Your task to perform on an android device: turn on airplane mode Image 0: 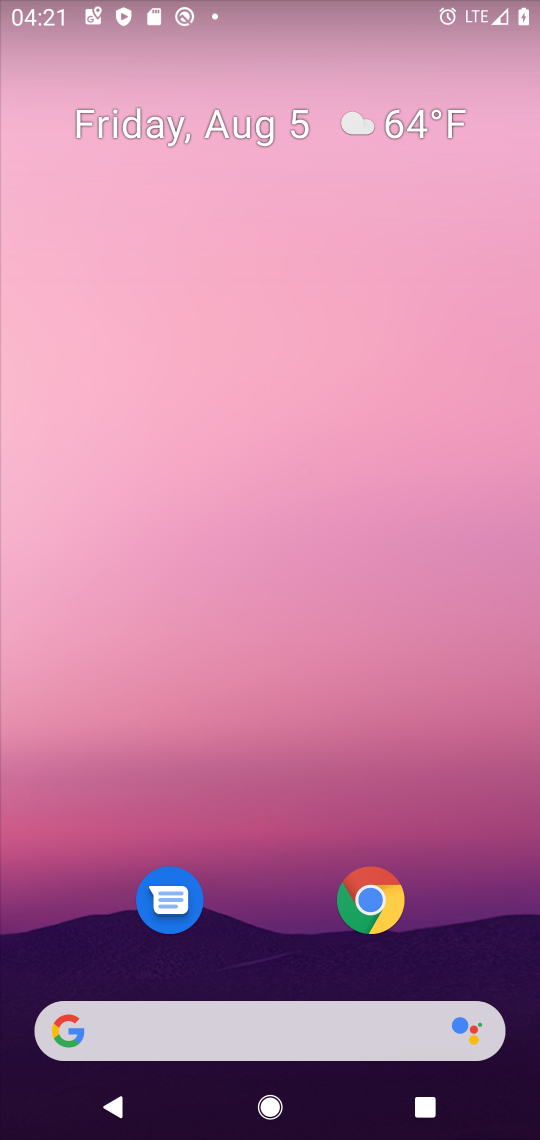
Step 0: drag from (310, 809) to (356, 136)
Your task to perform on an android device: turn on airplane mode Image 1: 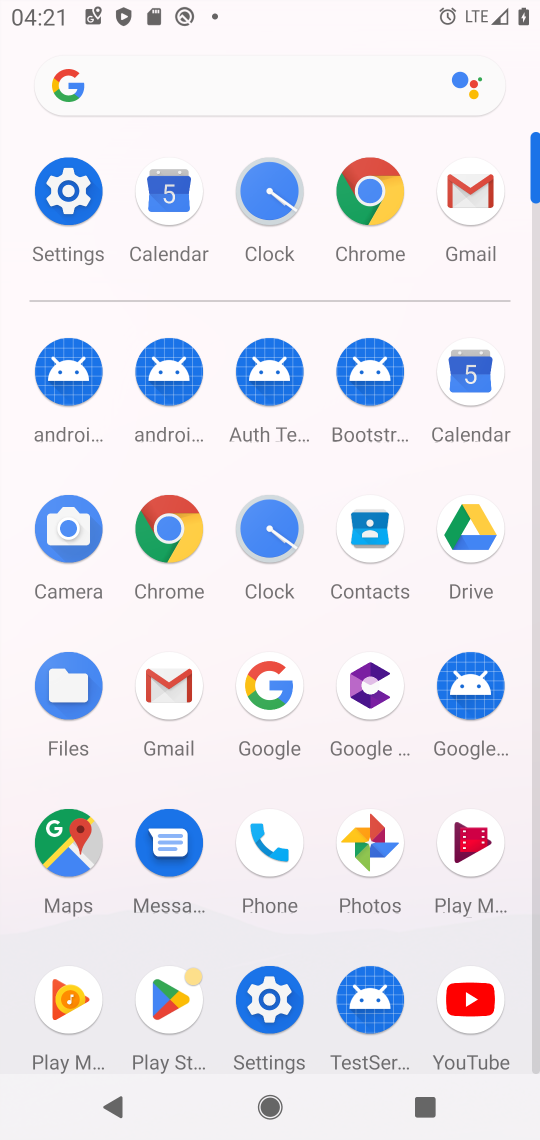
Step 1: drag from (498, 12) to (370, 863)
Your task to perform on an android device: turn on airplane mode Image 2: 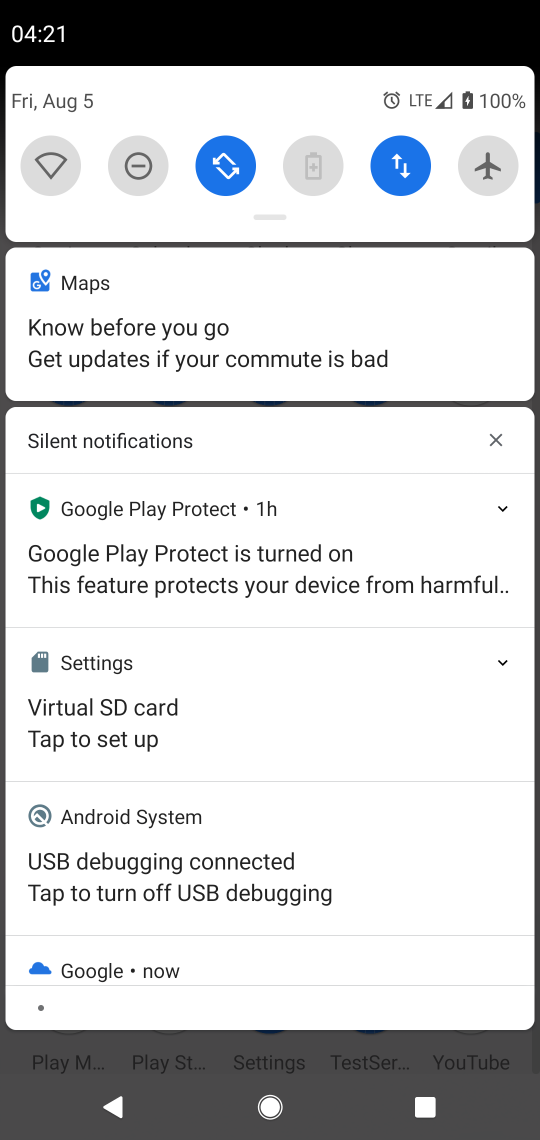
Step 2: click (480, 153)
Your task to perform on an android device: turn on airplane mode Image 3: 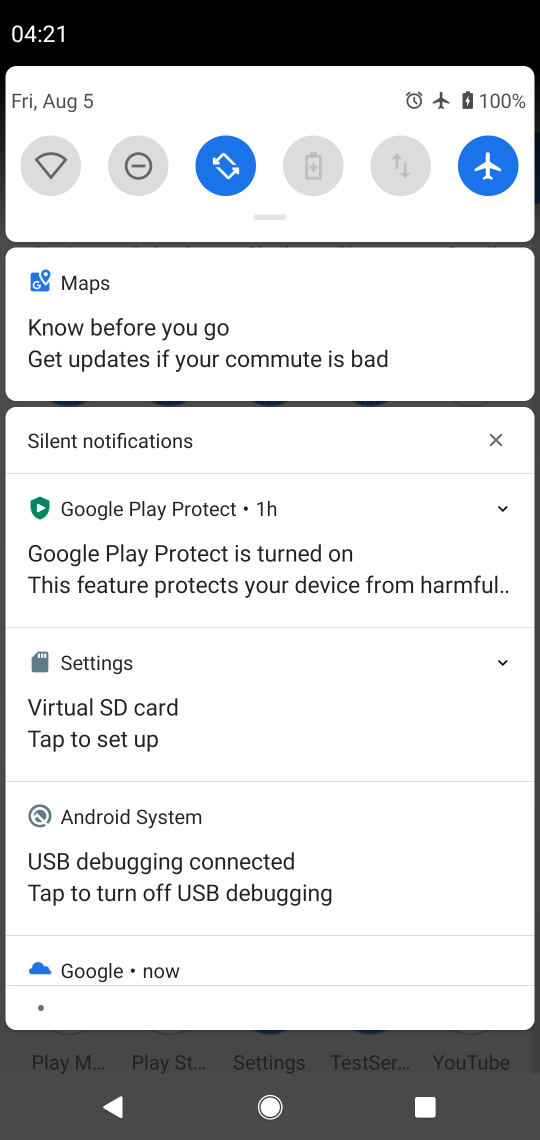
Step 3: task complete